Your task to perform on an android device: open sync settings in chrome Image 0: 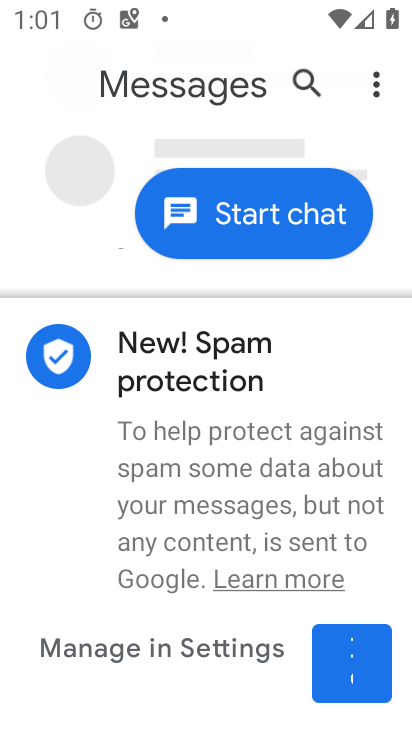
Step 0: press back button
Your task to perform on an android device: open sync settings in chrome Image 1: 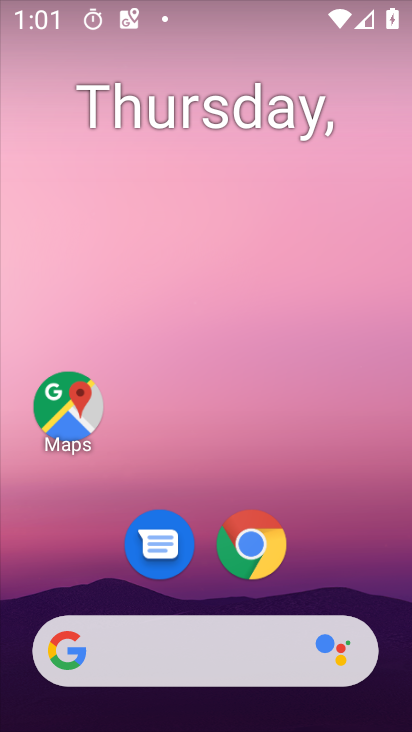
Step 1: click (259, 545)
Your task to perform on an android device: open sync settings in chrome Image 2: 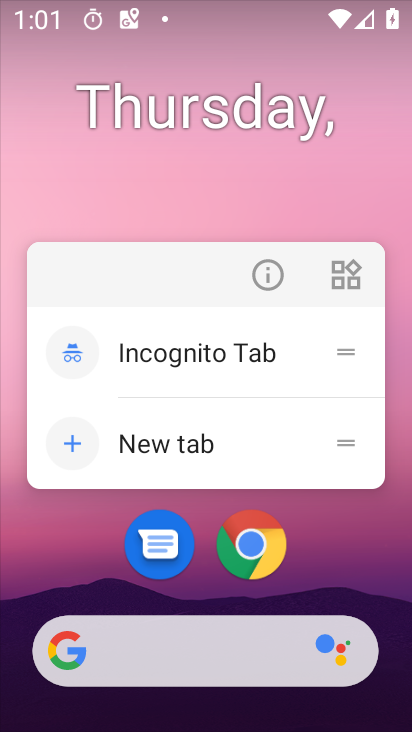
Step 2: click (238, 535)
Your task to perform on an android device: open sync settings in chrome Image 3: 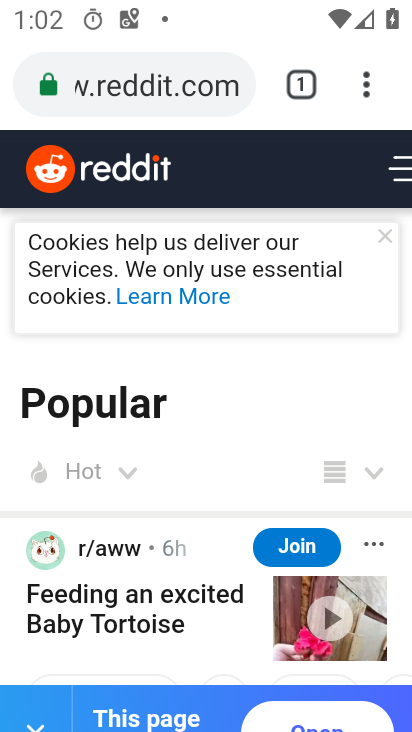
Step 3: click (356, 92)
Your task to perform on an android device: open sync settings in chrome Image 4: 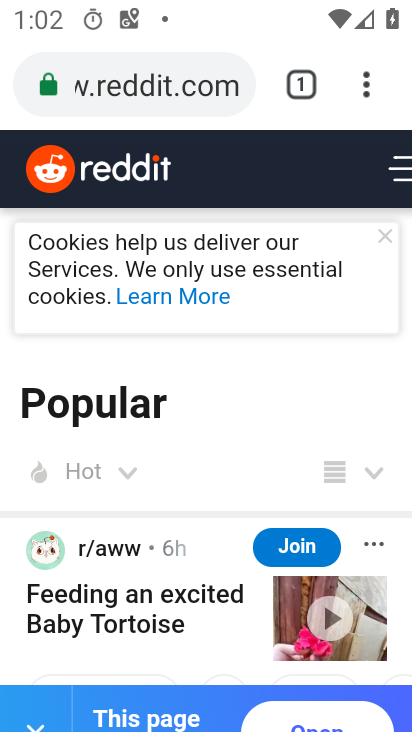
Step 4: click (368, 79)
Your task to perform on an android device: open sync settings in chrome Image 5: 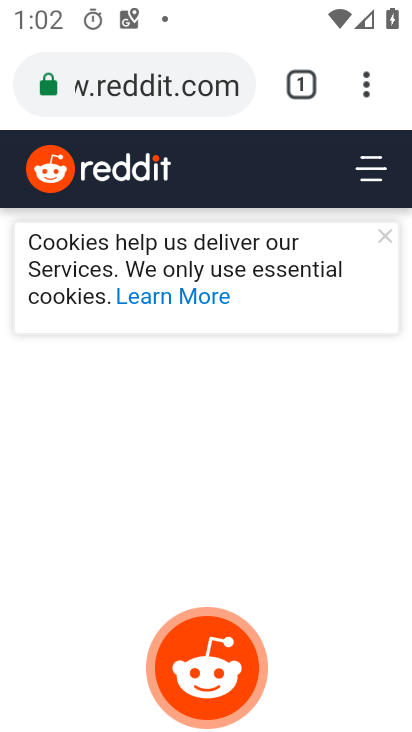
Step 5: click (368, 94)
Your task to perform on an android device: open sync settings in chrome Image 6: 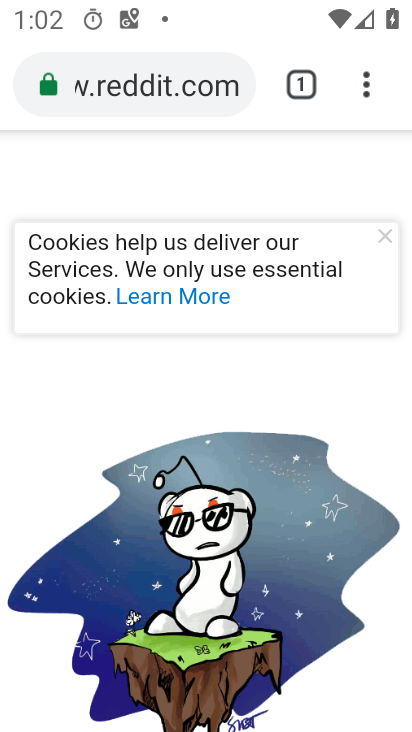
Step 6: click (364, 90)
Your task to perform on an android device: open sync settings in chrome Image 7: 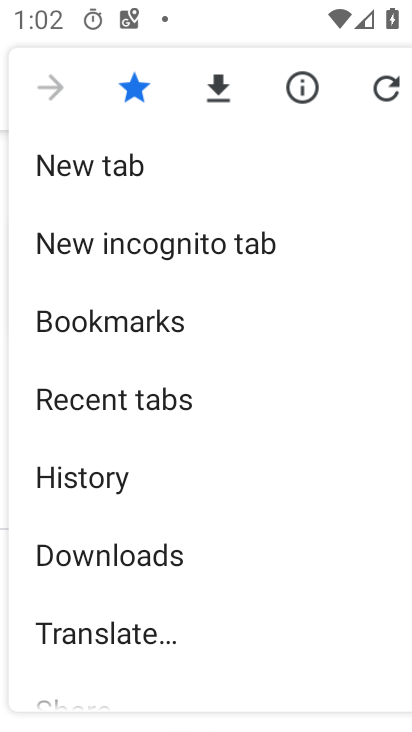
Step 7: drag from (126, 637) to (217, 132)
Your task to perform on an android device: open sync settings in chrome Image 8: 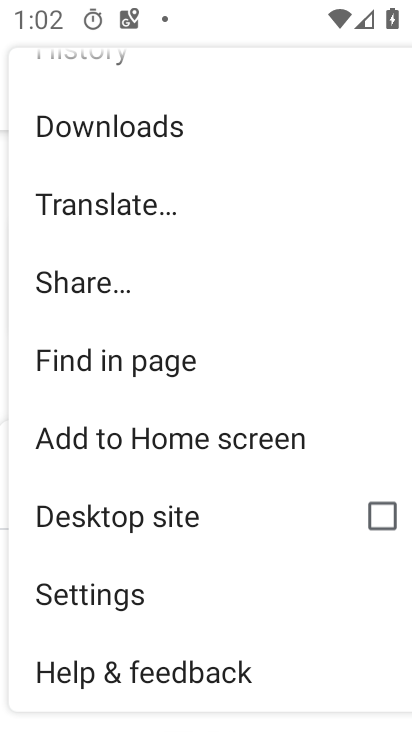
Step 8: click (114, 598)
Your task to perform on an android device: open sync settings in chrome Image 9: 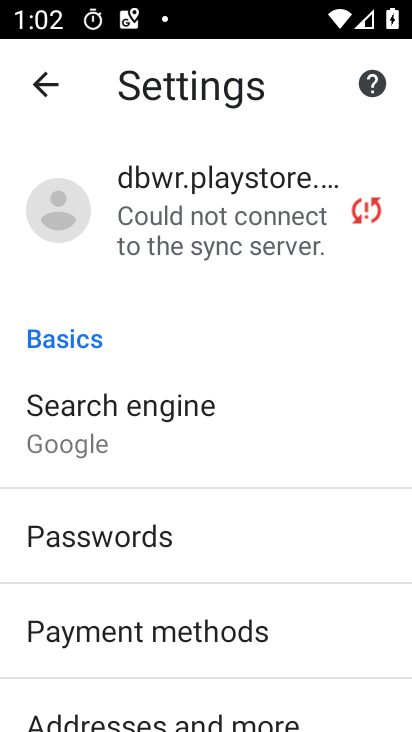
Step 9: drag from (58, 722) to (227, 139)
Your task to perform on an android device: open sync settings in chrome Image 10: 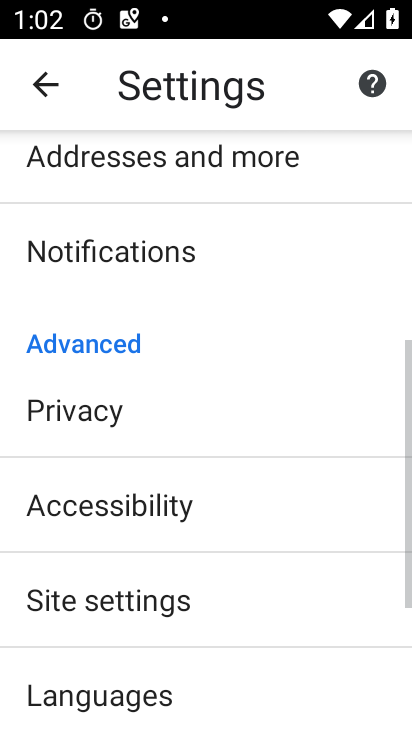
Step 10: drag from (121, 680) to (282, 187)
Your task to perform on an android device: open sync settings in chrome Image 11: 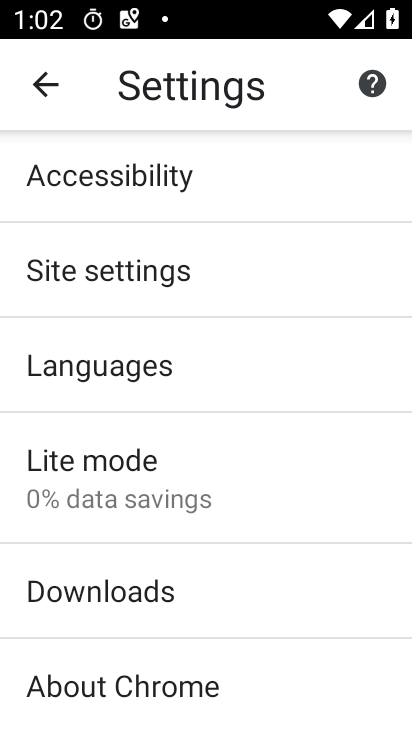
Step 11: click (142, 274)
Your task to perform on an android device: open sync settings in chrome Image 12: 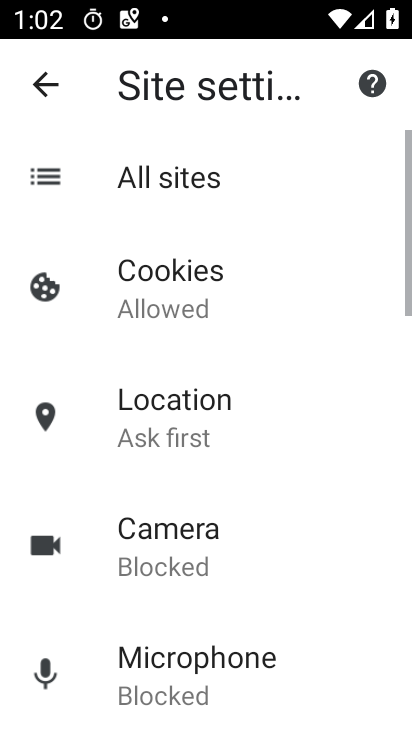
Step 12: drag from (79, 710) to (251, 195)
Your task to perform on an android device: open sync settings in chrome Image 13: 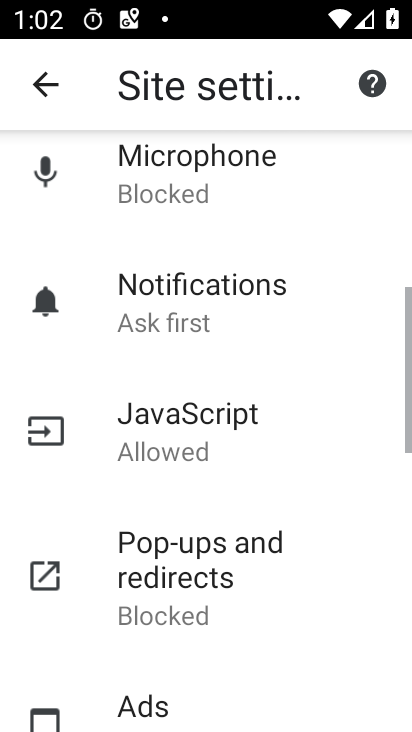
Step 13: drag from (134, 685) to (211, 169)
Your task to perform on an android device: open sync settings in chrome Image 14: 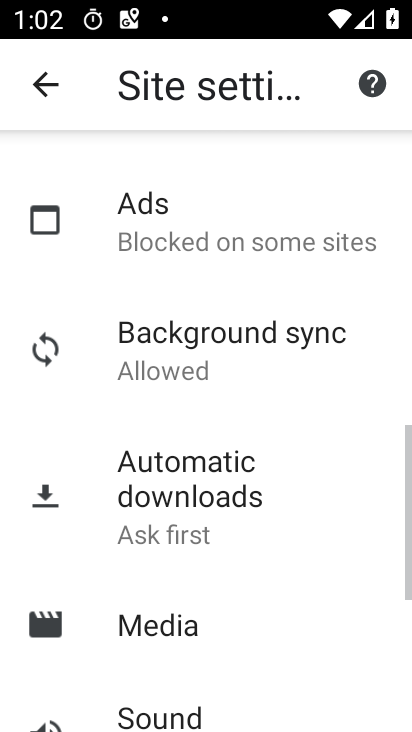
Step 14: click (164, 367)
Your task to perform on an android device: open sync settings in chrome Image 15: 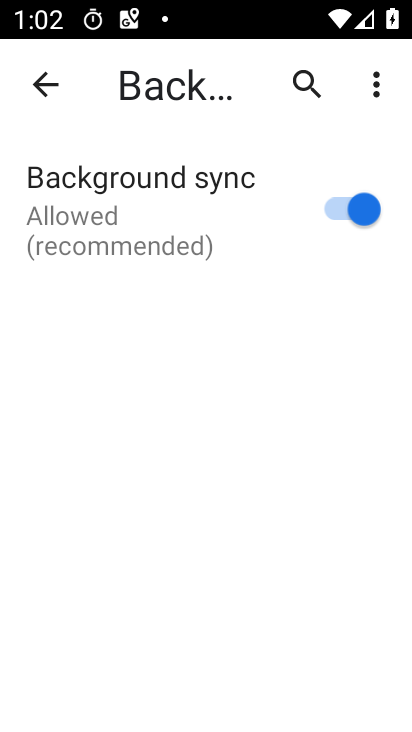
Step 15: task complete